Your task to perform on an android device: turn off data saver in the chrome app Image 0: 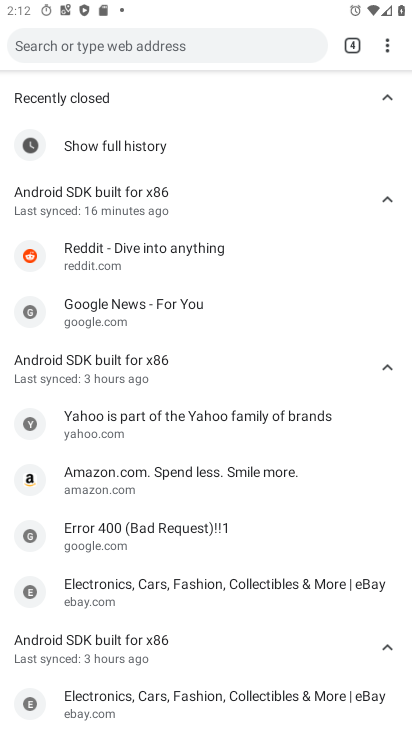
Step 0: press home button
Your task to perform on an android device: turn off data saver in the chrome app Image 1: 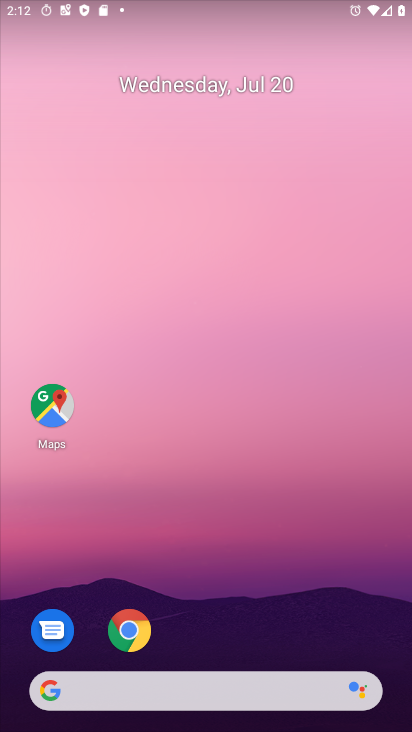
Step 1: click (138, 637)
Your task to perform on an android device: turn off data saver in the chrome app Image 2: 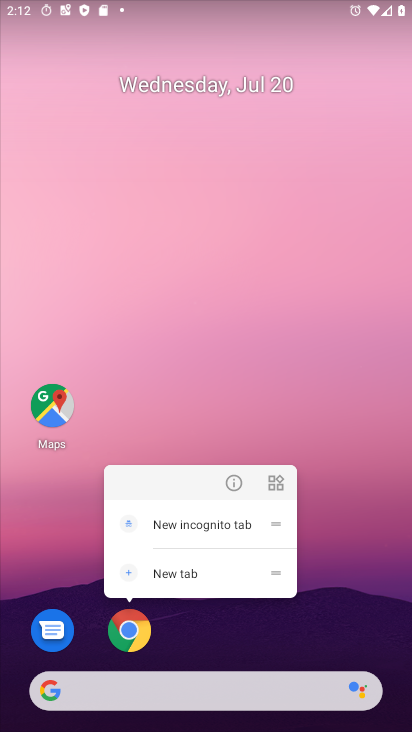
Step 2: click (125, 632)
Your task to perform on an android device: turn off data saver in the chrome app Image 3: 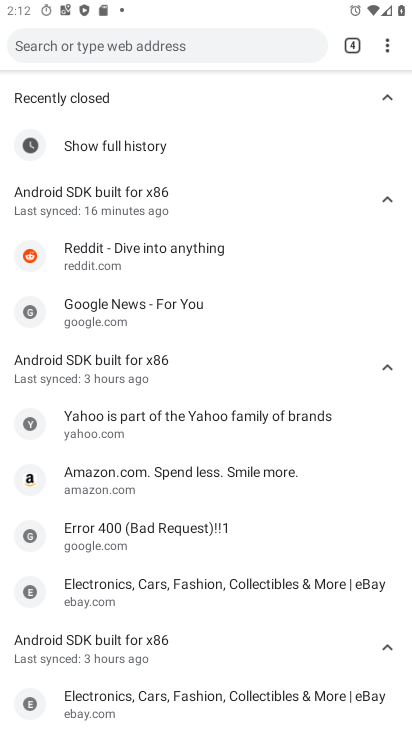
Step 3: drag from (385, 44) to (272, 384)
Your task to perform on an android device: turn off data saver in the chrome app Image 4: 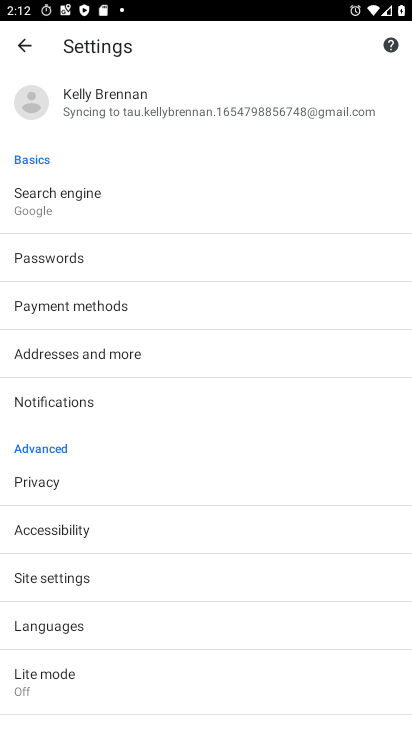
Step 4: click (76, 679)
Your task to perform on an android device: turn off data saver in the chrome app Image 5: 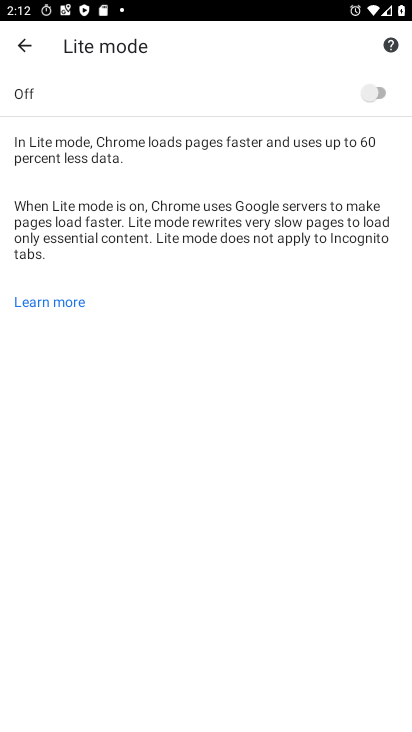
Step 5: task complete